Your task to perform on an android device: toggle location history Image 0: 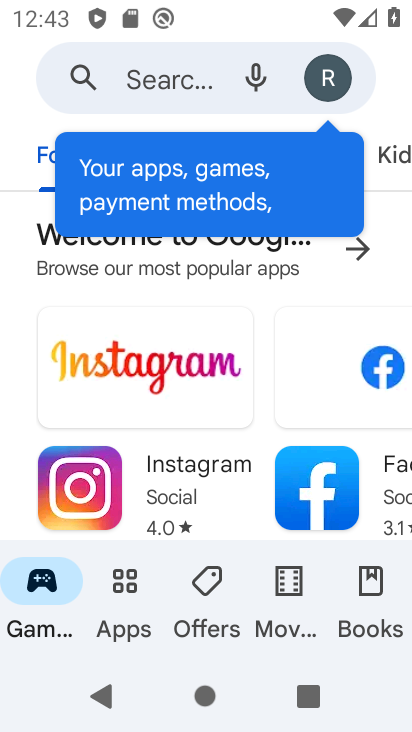
Step 0: press back button
Your task to perform on an android device: toggle location history Image 1: 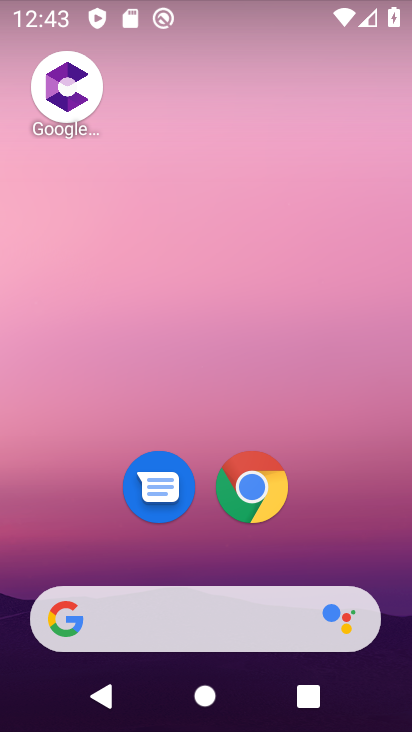
Step 1: drag from (70, 557) to (179, 144)
Your task to perform on an android device: toggle location history Image 2: 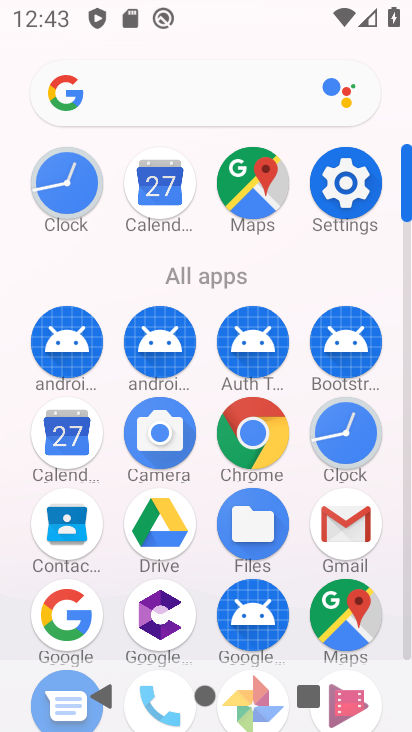
Step 2: click (345, 178)
Your task to perform on an android device: toggle location history Image 3: 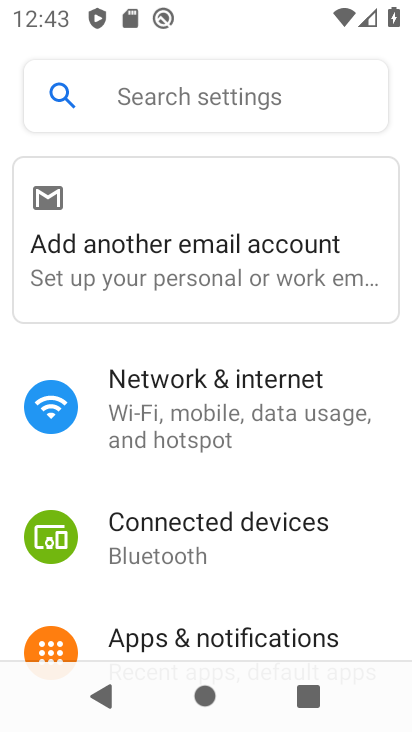
Step 3: drag from (191, 618) to (267, 157)
Your task to perform on an android device: toggle location history Image 4: 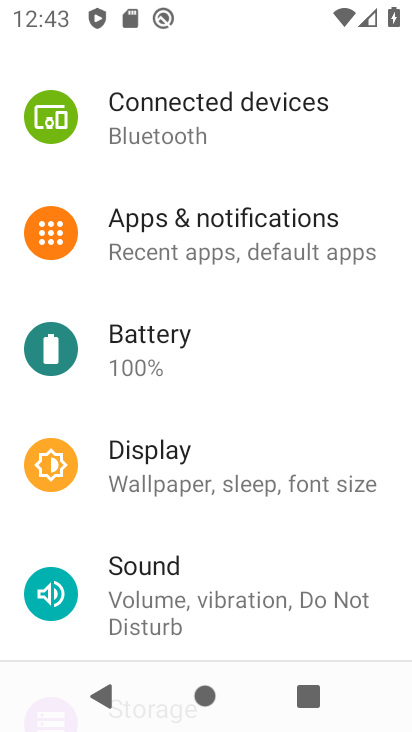
Step 4: drag from (193, 607) to (303, 135)
Your task to perform on an android device: toggle location history Image 5: 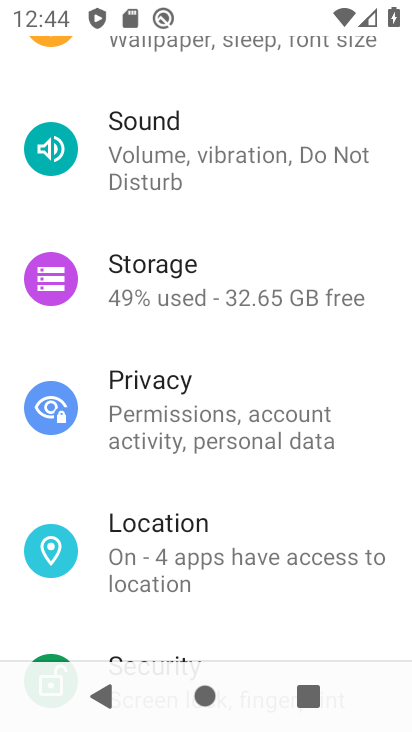
Step 5: click (191, 535)
Your task to perform on an android device: toggle location history Image 6: 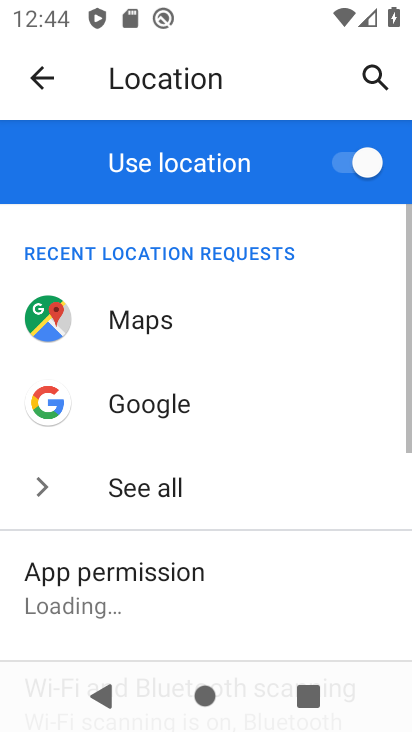
Step 6: drag from (164, 605) to (251, 23)
Your task to perform on an android device: toggle location history Image 7: 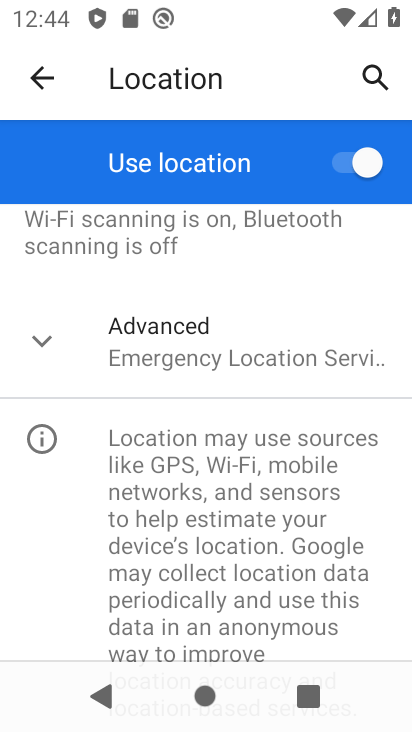
Step 7: click (247, 337)
Your task to perform on an android device: toggle location history Image 8: 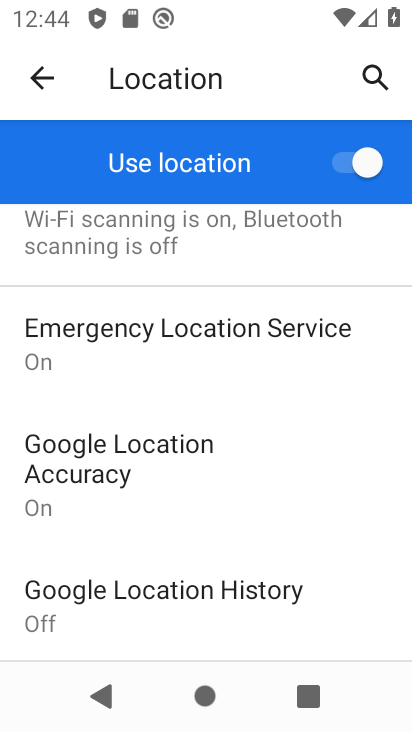
Step 8: click (162, 593)
Your task to perform on an android device: toggle location history Image 9: 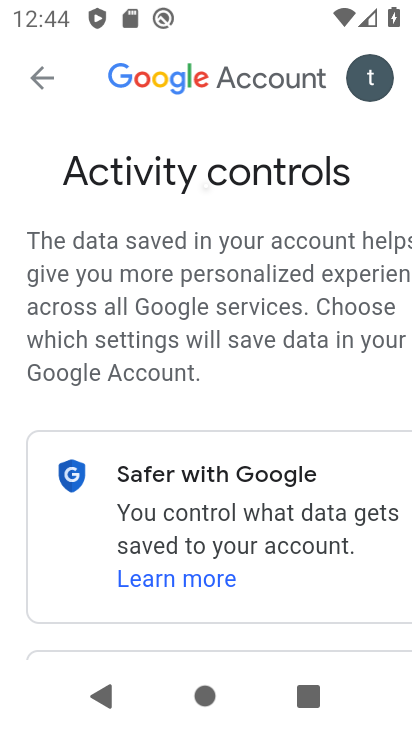
Step 9: drag from (222, 548) to (233, 25)
Your task to perform on an android device: toggle location history Image 10: 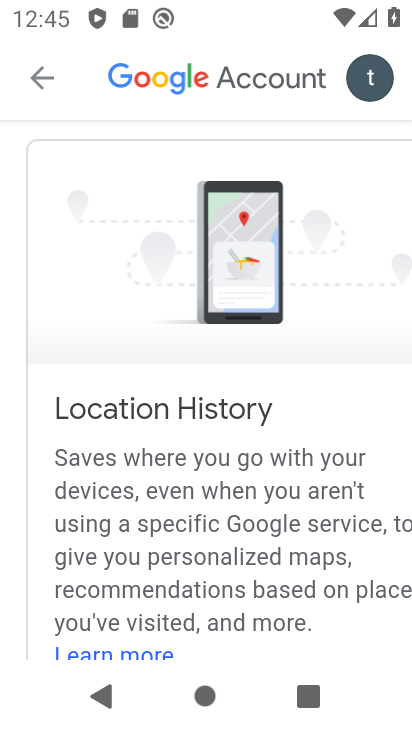
Step 10: drag from (150, 591) to (249, 70)
Your task to perform on an android device: toggle location history Image 11: 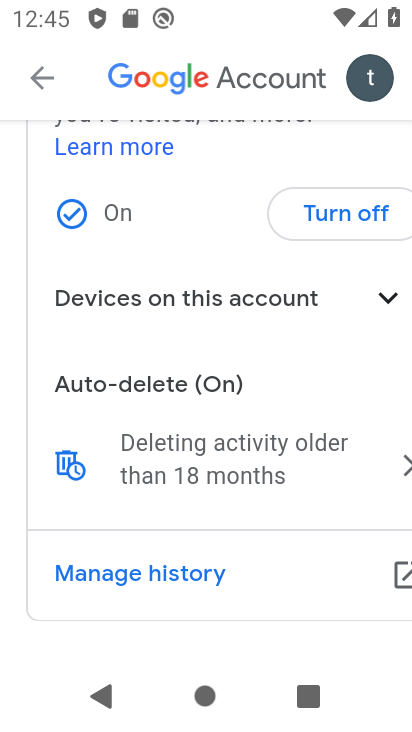
Step 11: click (327, 214)
Your task to perform on an android device: toggle location history Image 12: 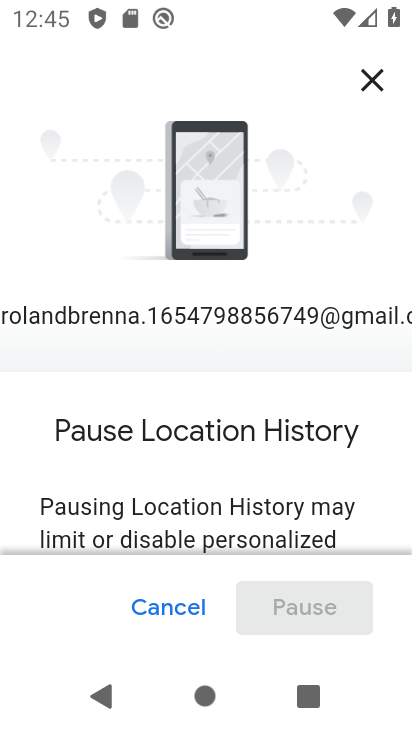
Step 12: drag from (243, 511) to (293, 37)
Your task to perform on an android device: toggle location history Image 13: 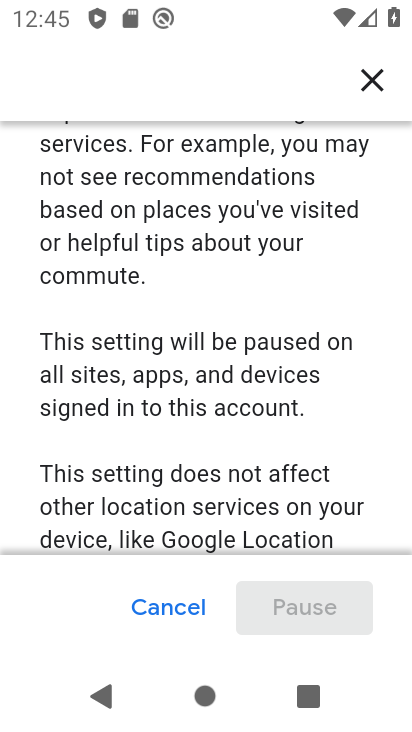
Step 13: drag from (240, 484) to (243, 8)
Your task to perform on an android device: toggle location history Image 14: 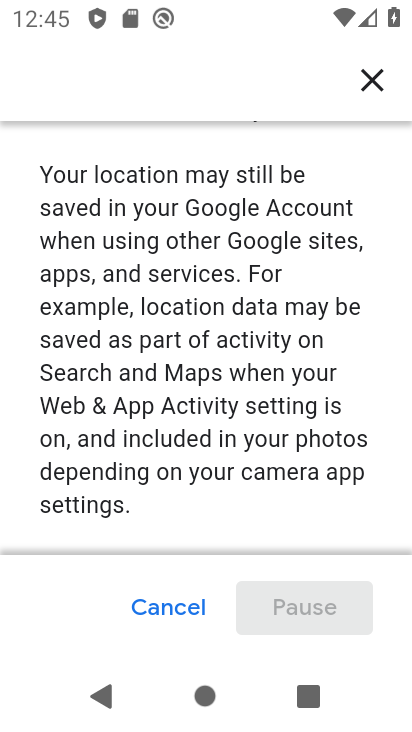
Step 14: drag from (212, 493) to (276, 41)
Your task to perform on an android device: toggle location history Image 15: 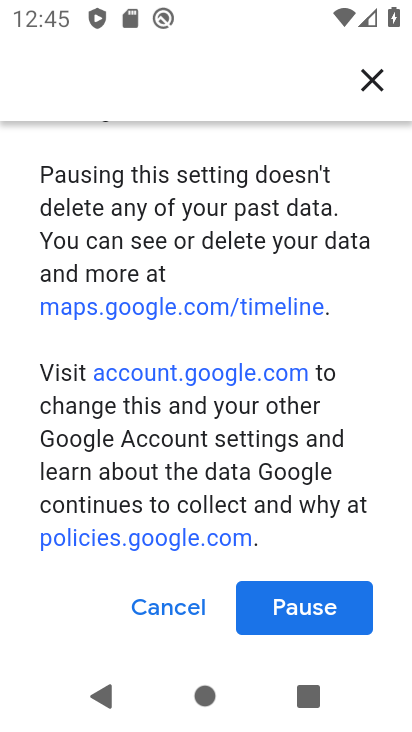
Step 15: drag from (249, 538) to (305, 22)
Your task to perform on an android device: toggle location history Image 16: 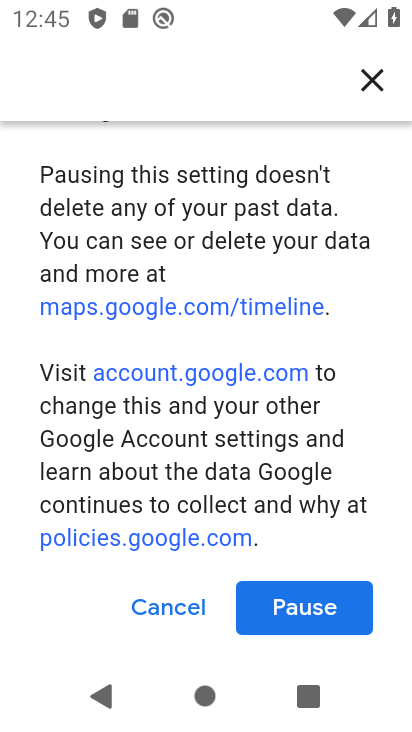
Step 16: click (302, 604)
Your task to perform on an android device: toggle location history Image 17: 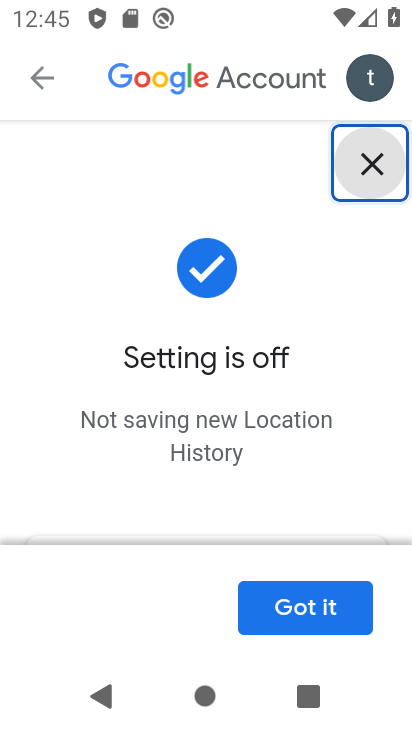
Step 17: click (300, 619)
Your task to perform on an android device: toggle location history Image 18: 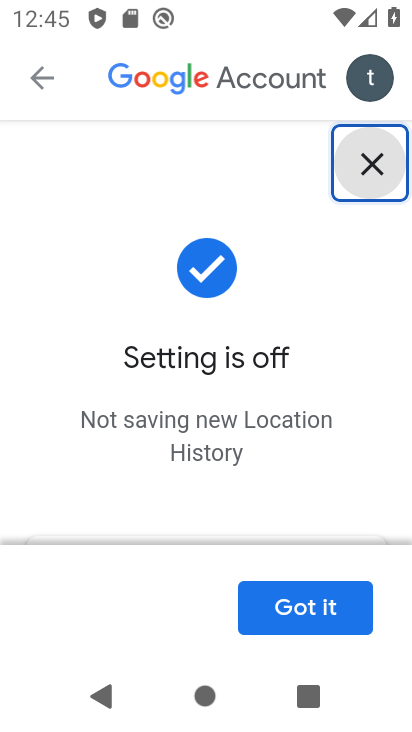
Step 18: task complete